Your task to perform on an android device: Toggle the flashlight Image 0: 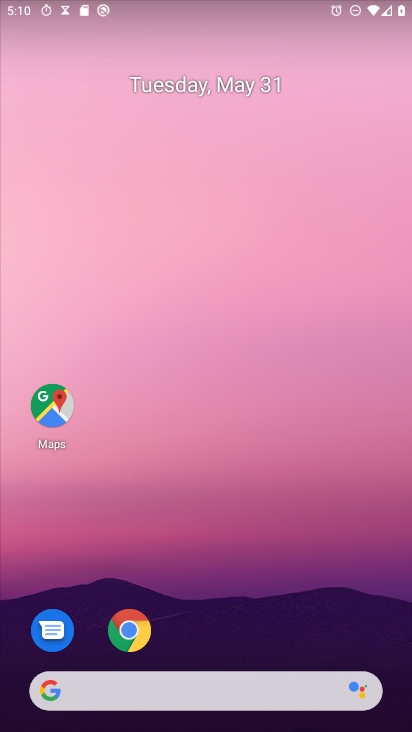
Step 0: drag from (262, 686) to (283, 97)
Your task to perform on an android device: Toggle the flashlight Image 1: 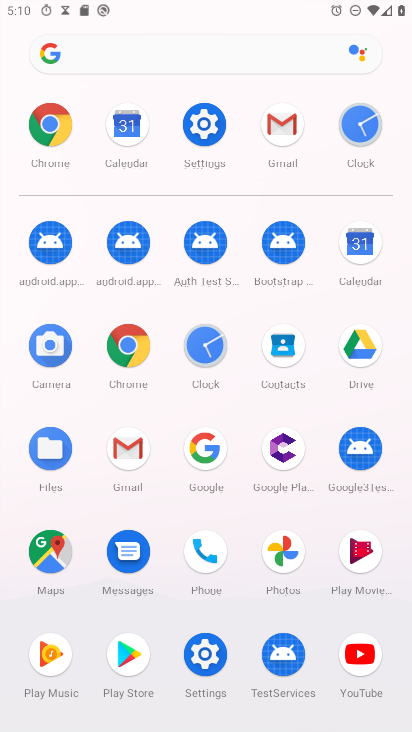
Step 1: task complete